Your task to perform on an android device: Go to internet settings Image 0: 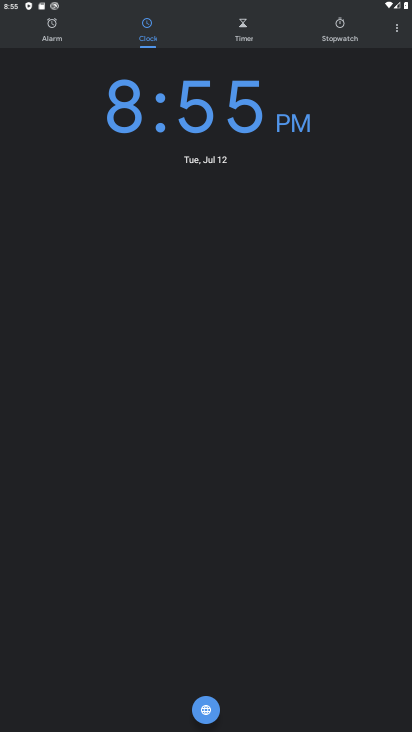
Step 0: press home button
Your task to perform on an android device: Go to internet settings Image 1: 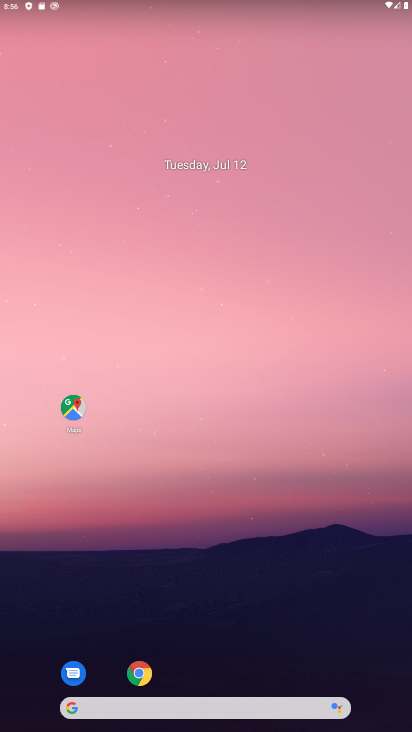
Step 1: drag from (210, 657) to (102, 6)
Your task to perform on an android device: Go to internet settings Image 2: 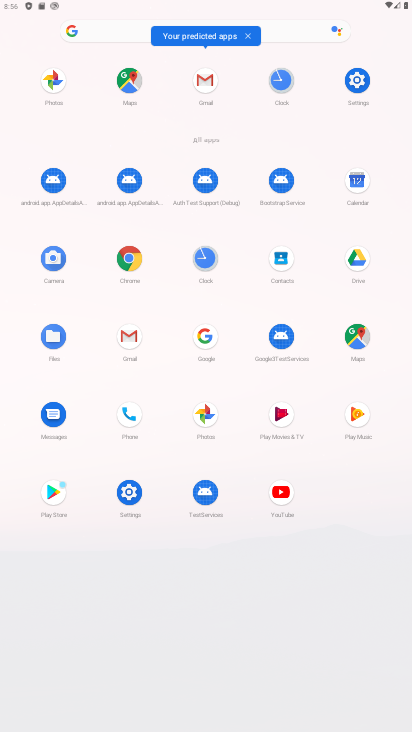
Step 2: click (116, 495)
Your task to perform on an android device: Go to internet settings Image 3: 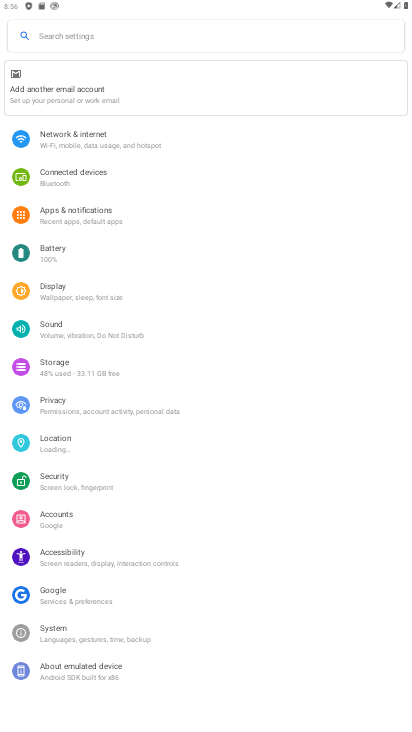
Step 3: click (82, 129)
Your task to perform on an android device: Go to internet settings Image 4: 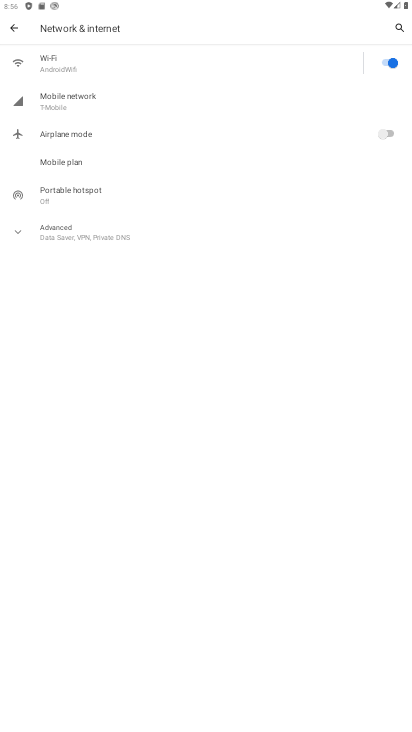
Step 4: click (66, 105)
Your task to perform on an android device: Go to internet settings Image 5: 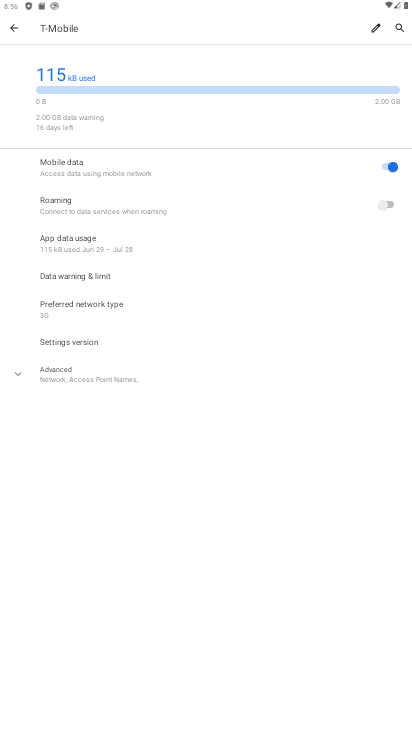
Step 5: task complete